Your task to perform on an android device: uninstall "Spotify: Music and Podcasts" Image 0: 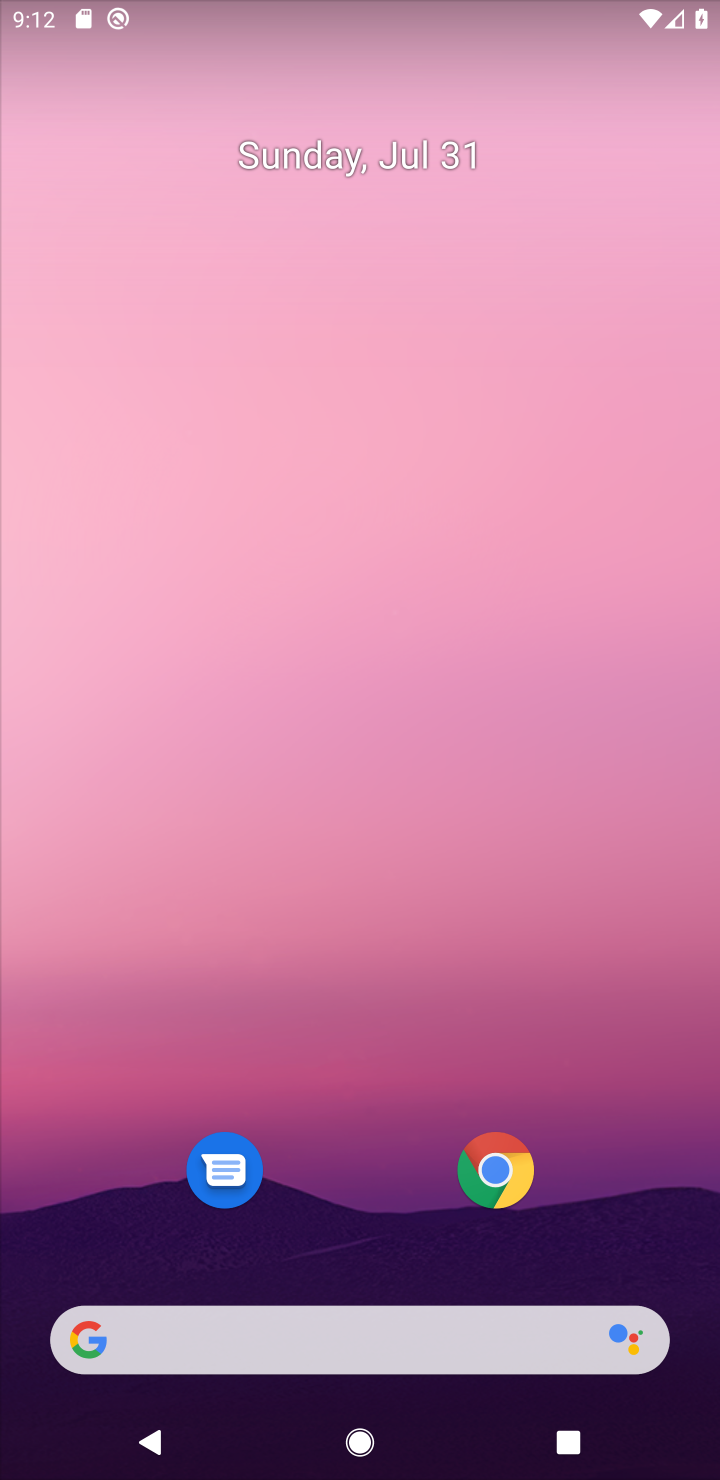
Step 0: drag from (657, 1183) to (338, 0)
Your task to perform on an android device: uninstall "Spotify: Music and Podcasts" Image 1: 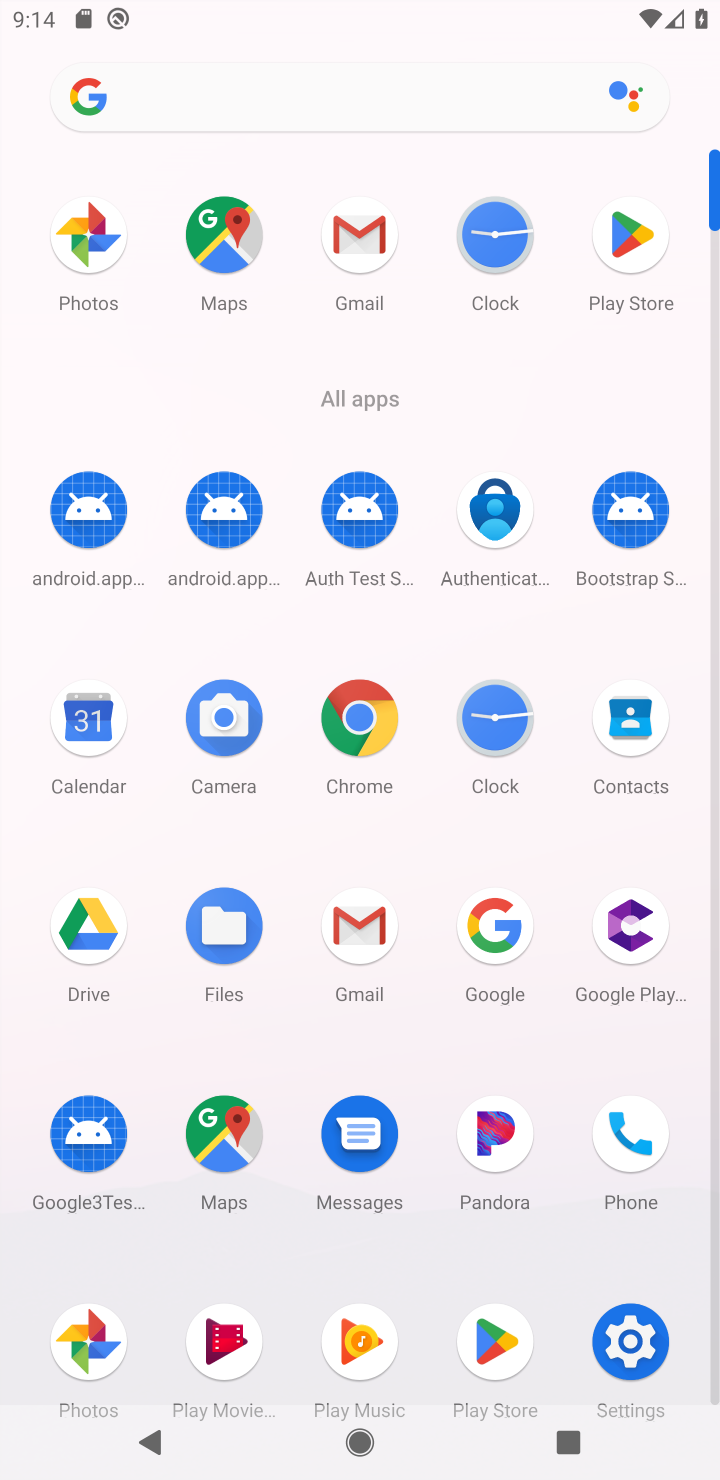
Step 1: click (485, 1313)
Your task to perform on an android device: uninstall "Spotify: Music and Podcasts" Image 2: 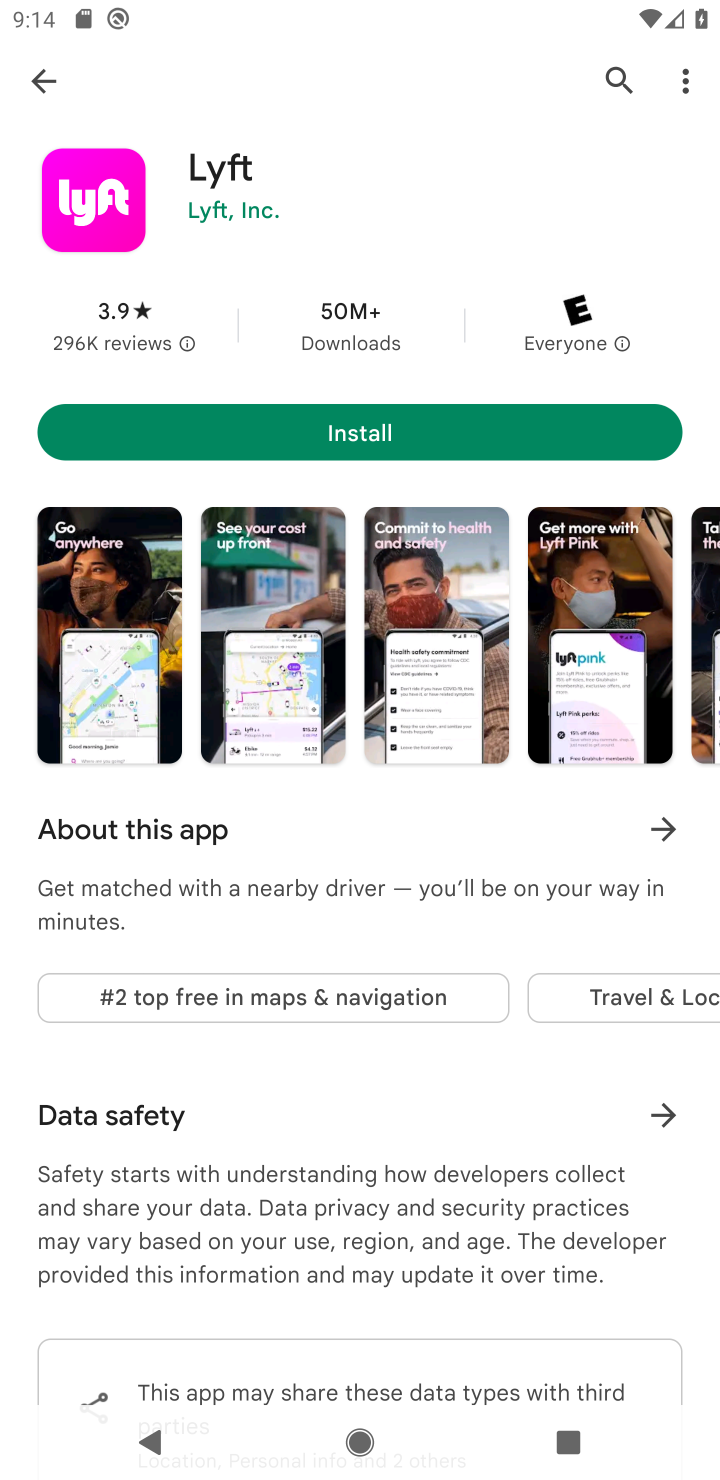
Step 2: press back button
Your task to perform on an android device: uninstall "Spotify: Music and Podcasts" Image 3: 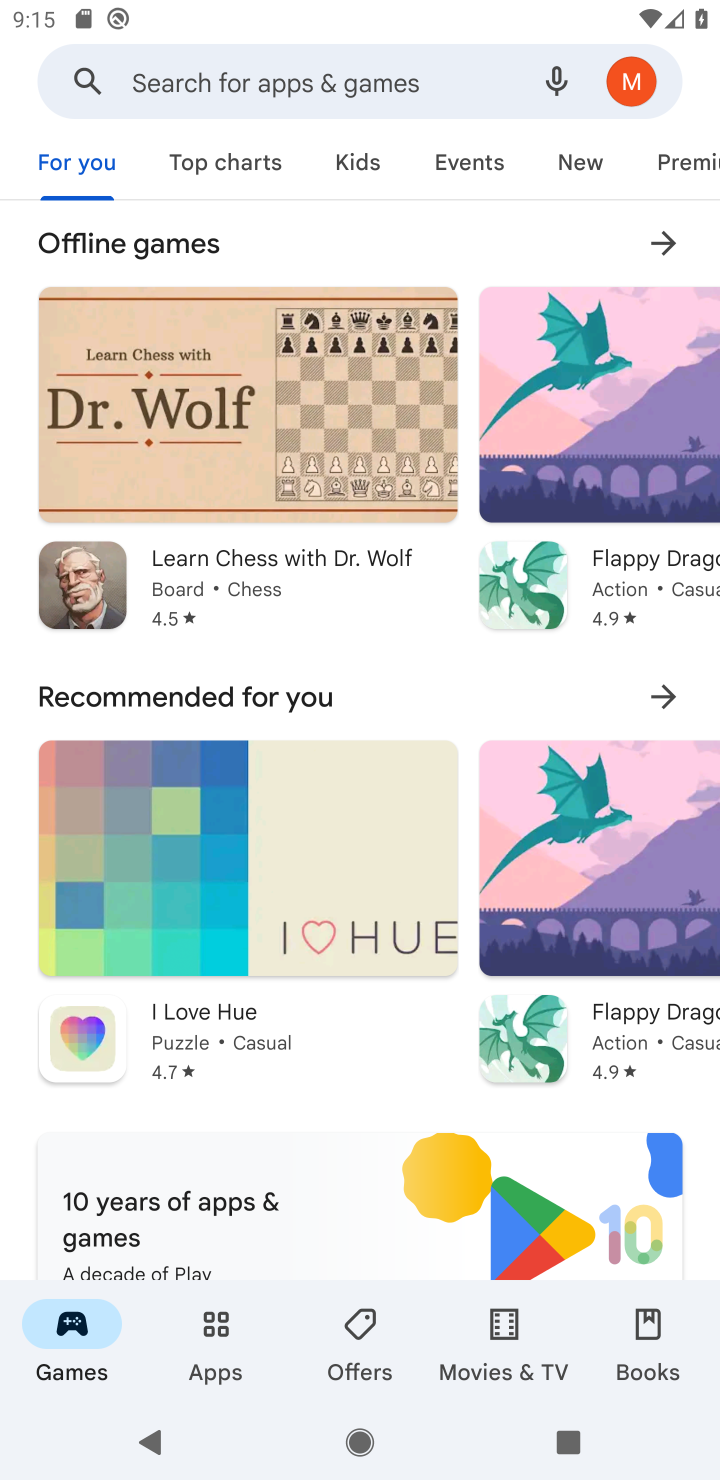
Step 3: click (323, 89)
Your task to perform on an android device: uninstall "Spotify: Music and Podcasts" Image 4: 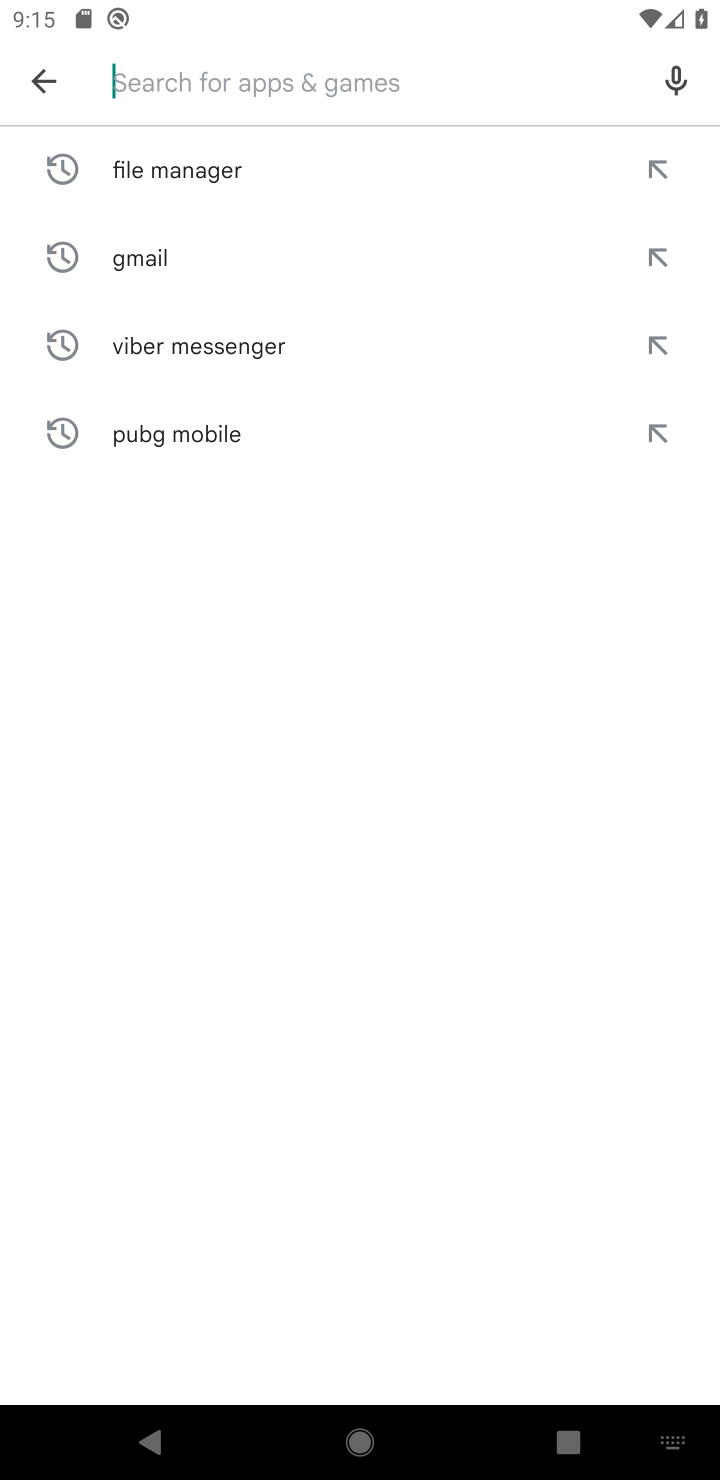
Step 4: type "Spotify: Music and Podcasts"
Your task to perform on an android device: uninstall "Spotify: Music and Podcasts" Image 5: 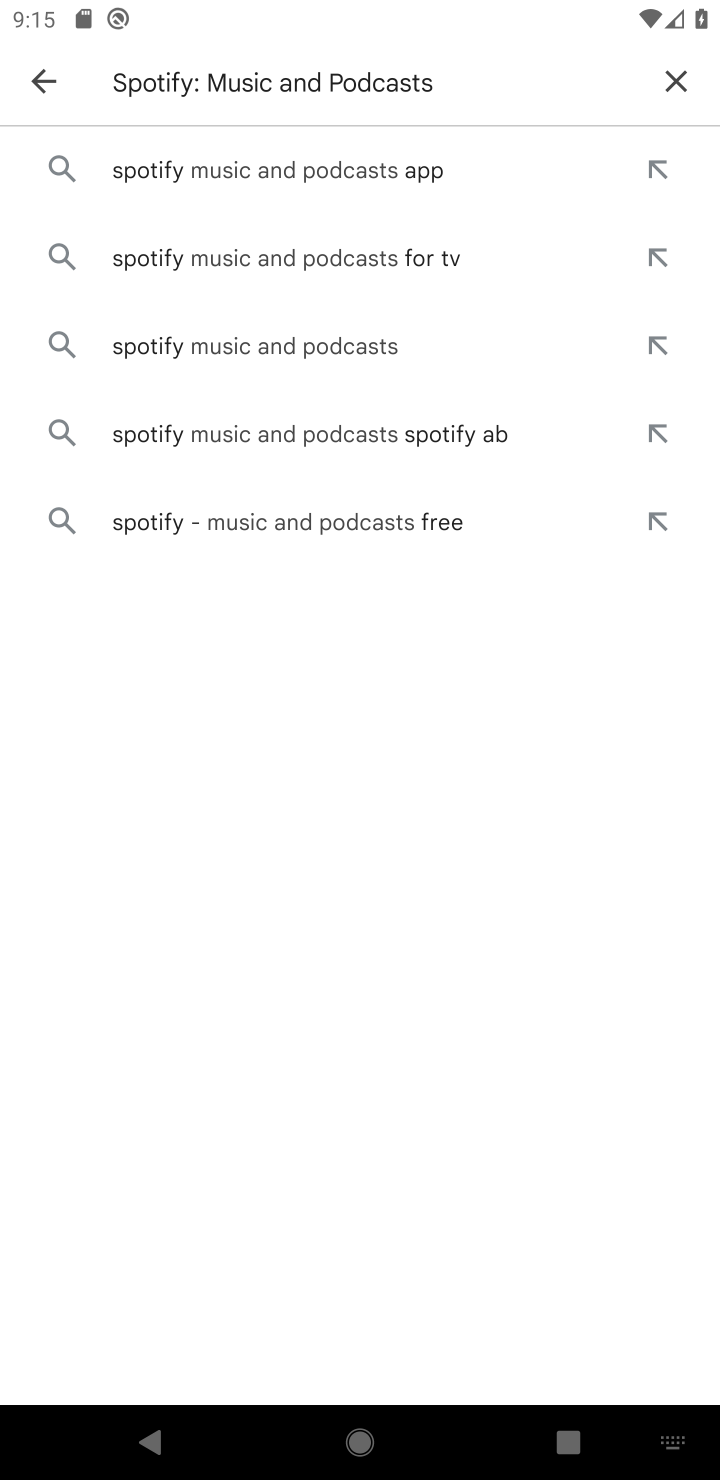
Step 5: click (220, 161)
Your task to perform on an android device: uninstall "Spotify: Music and Podcasts" Image 6: 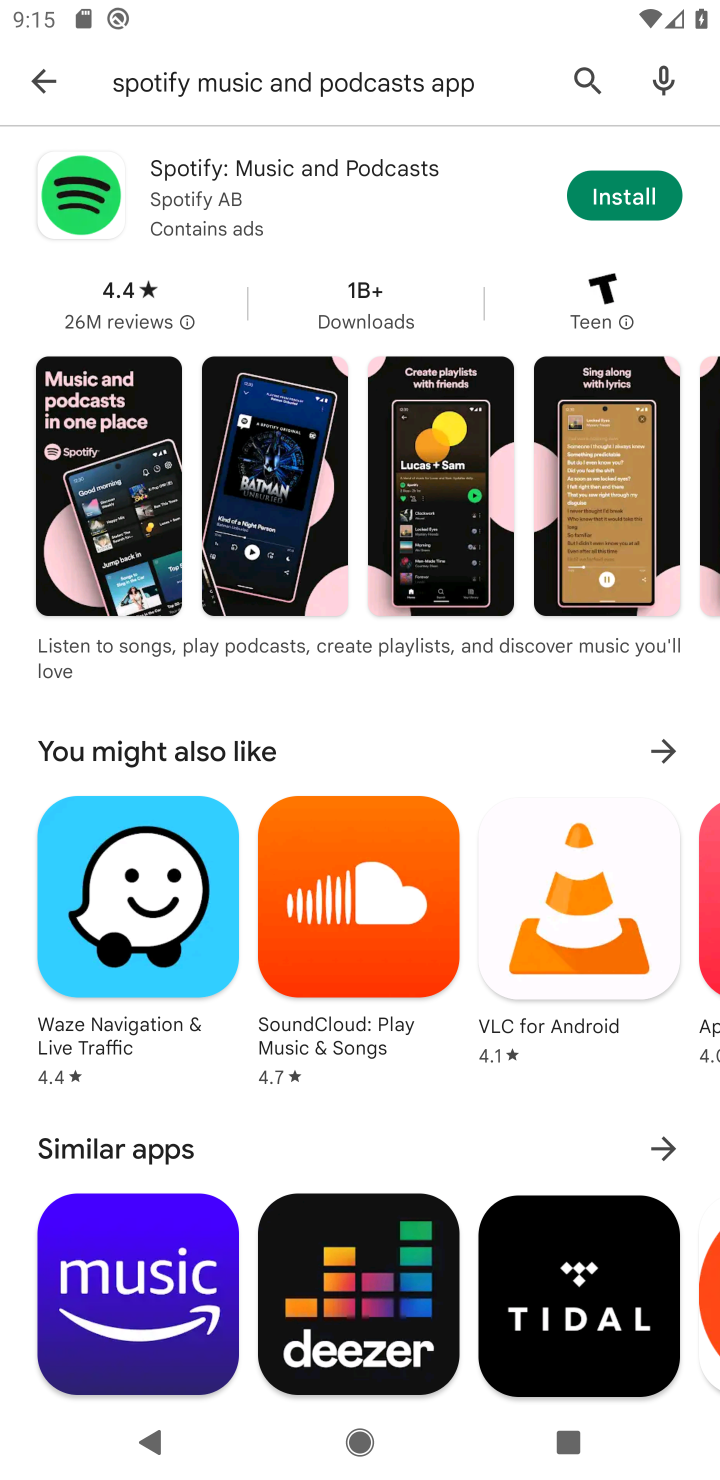
Step 6: task complete